Your task to perform on an android device: install app "Nova Launcher" Image 0: 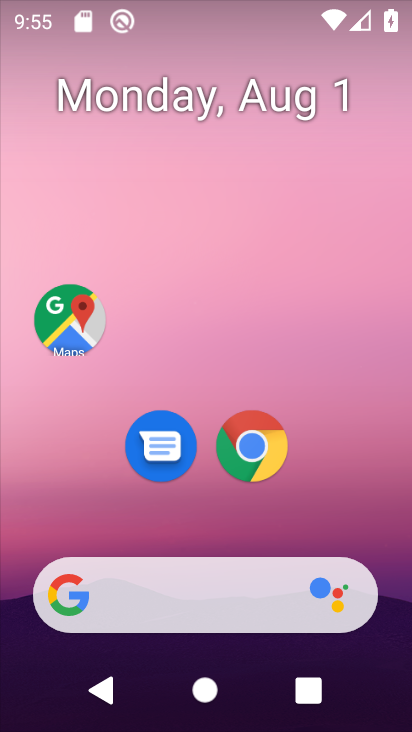
Step 0: drag from (202, 523) to (204, 113)
Your task to perform on an android device: install app "Nova Launcher" Image 1: 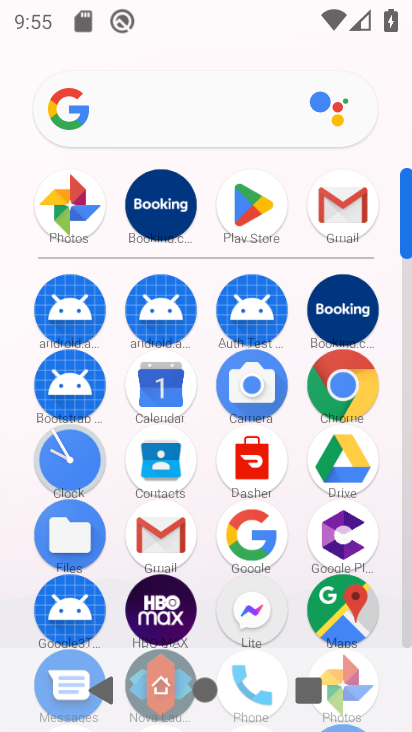
Step 1: click (256, 223)
Your task to perform on an android device: install app "Nova Launcher" Image 2: 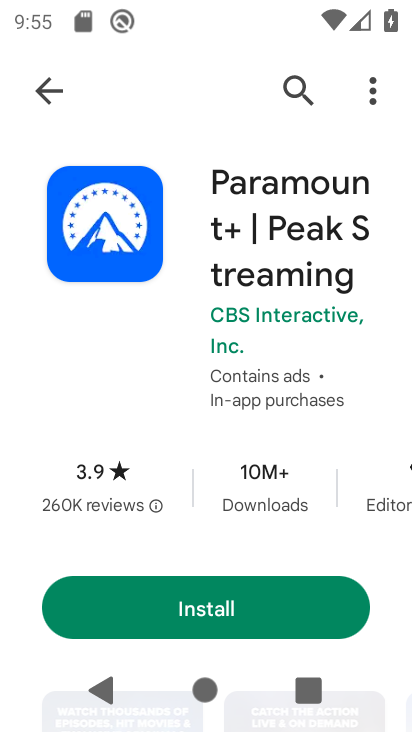
Step 2: click (307, 96)
Your task to perform on an android device: install app "Nova Launcher" Image 3: 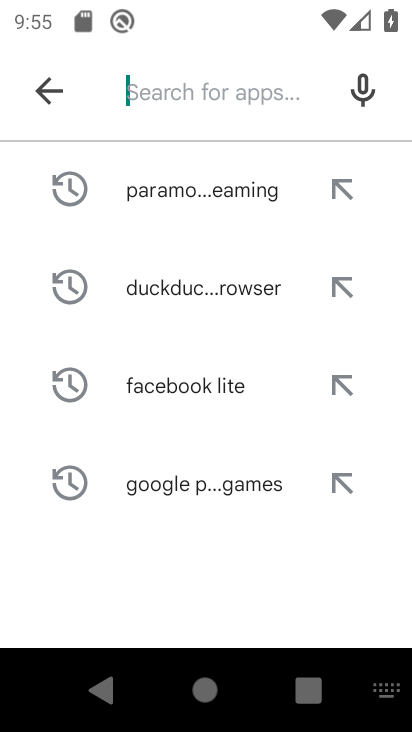
Step 3: type "Nova Launcher"
Your task to perform on an android device: install app "Nova Launcher" Image 4: 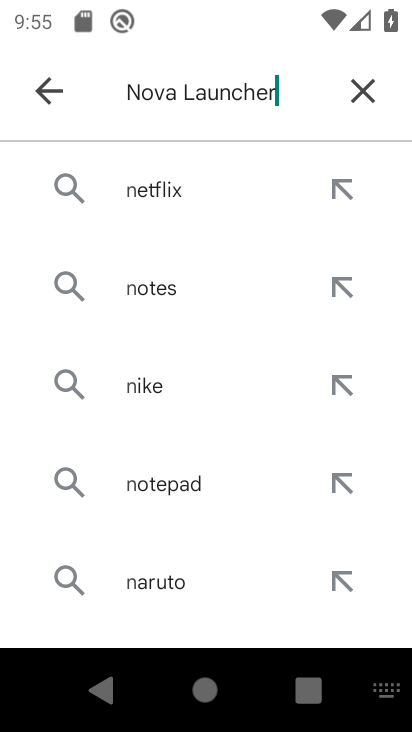
Step 4: type ""
Your task to perform on an android device: install app "Nova Launcher" Image 5: 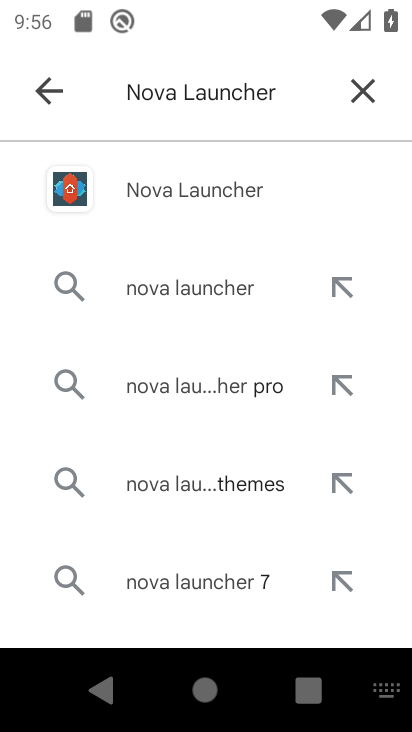
Step 5: click (213, 205)
Your task to perform on an android device: install app "Nova Launcher" Image 6: 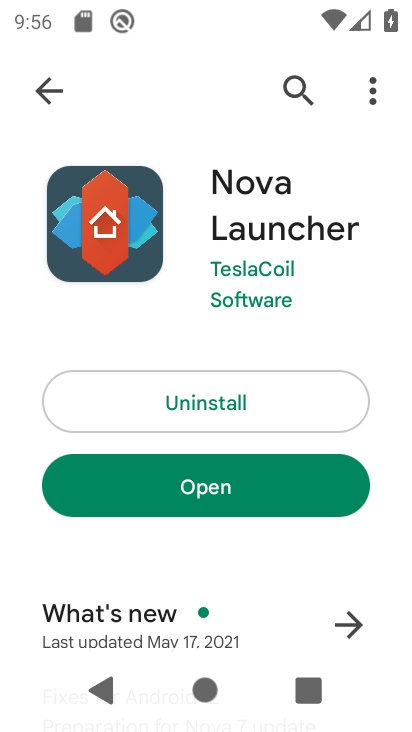
Step 6: task complete